Your task to perform on an android device: Open maps Image 0: 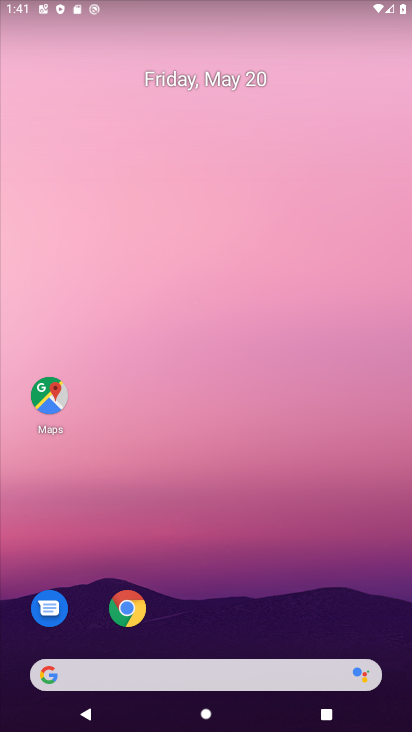
Step 0: click (31, 386)
Your task to perform on an android device: Open maps Image 1: 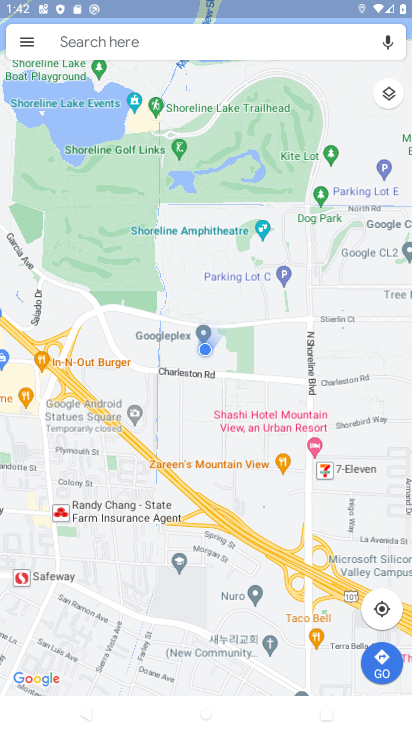
Step 1: task complete